Your task to perform on an android device: check android version Image 0: 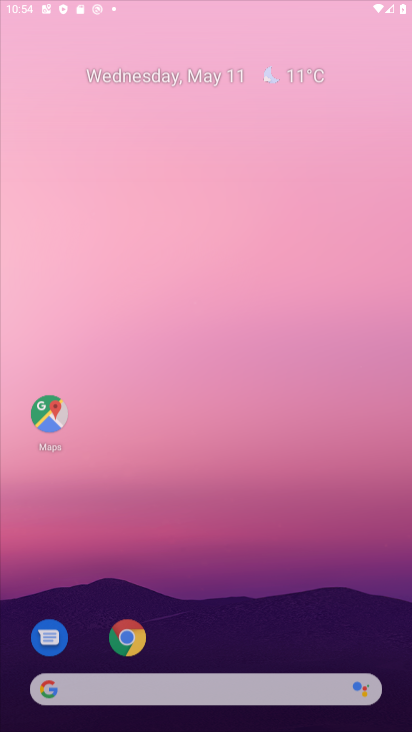
Step 0: click (256, 177)
Your task to perform on an android device: check android version Image 1: 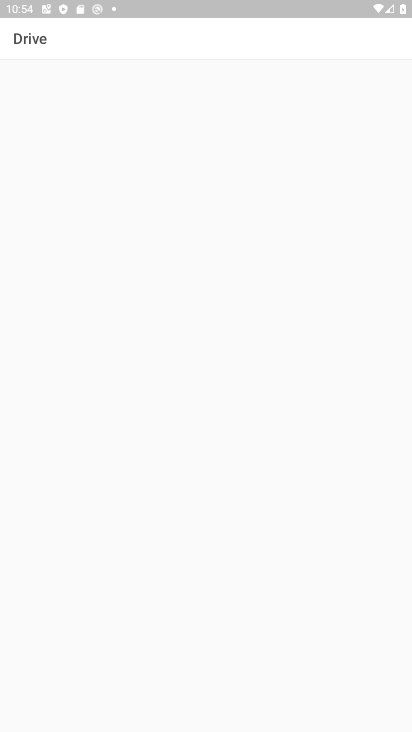
Step 1: press home button
Your task to perform on an android device: check android version Image 2: 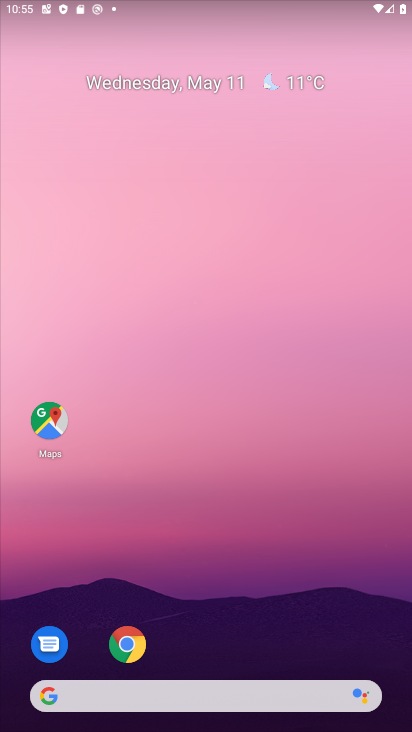
Step 2: drag from (208, 654) to (230, 243)
Your task to perform on an android device: check android version Image 3: 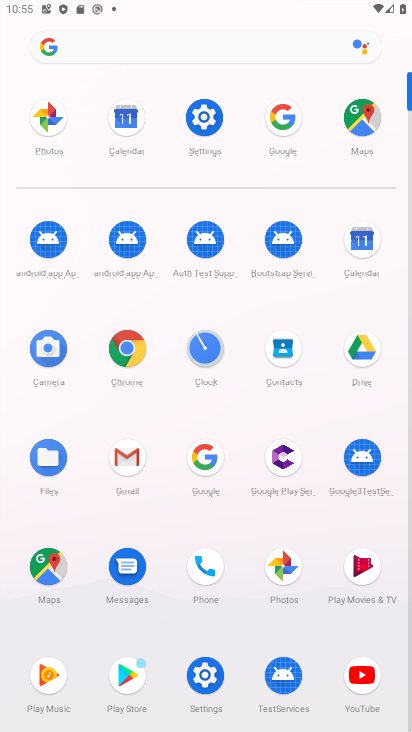
Step 3: click (203, 670)
Your task to perform on an android device: check android version Image 4: 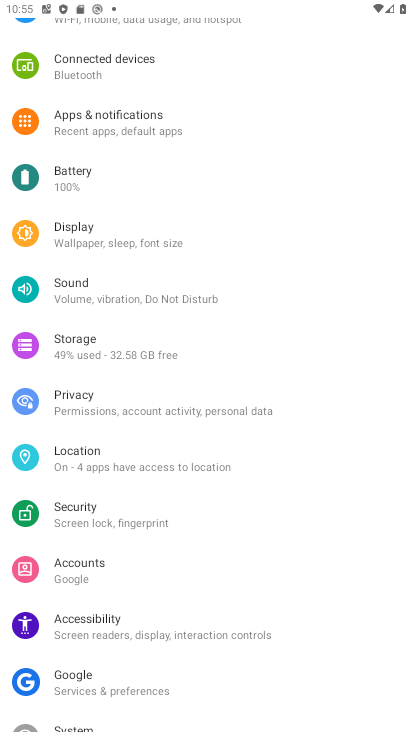
Step 4: drag from (175, 631) to (161, 169)
Your task to perform on an android device: check android version Image 5: 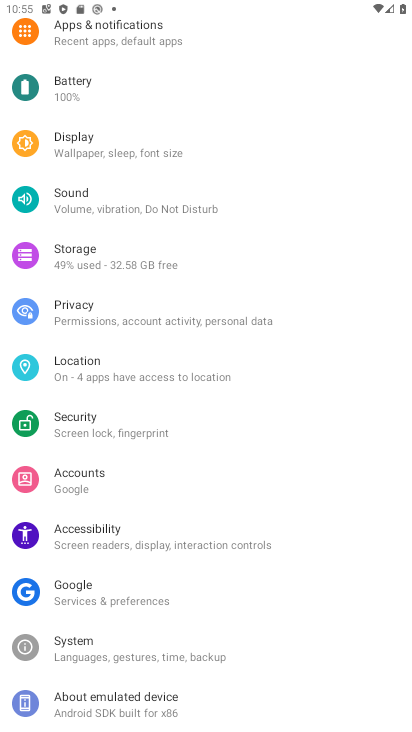
Step 5: click (128, 696)
Your task to perform on an android device: check android version Image 6: 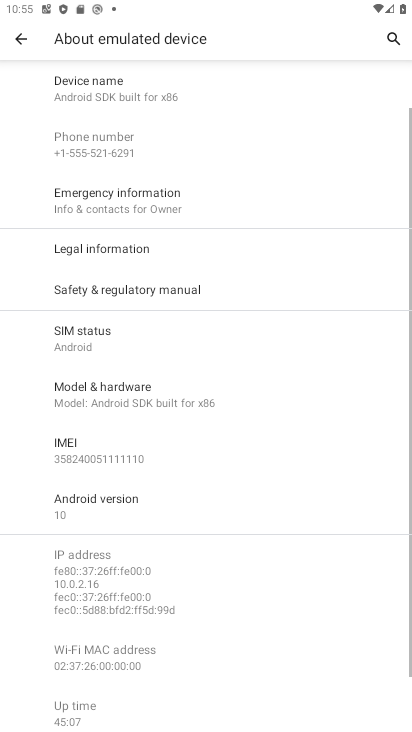
Step 6: click (106, 497)
Your task to perform on an android device: check android version Image 7: 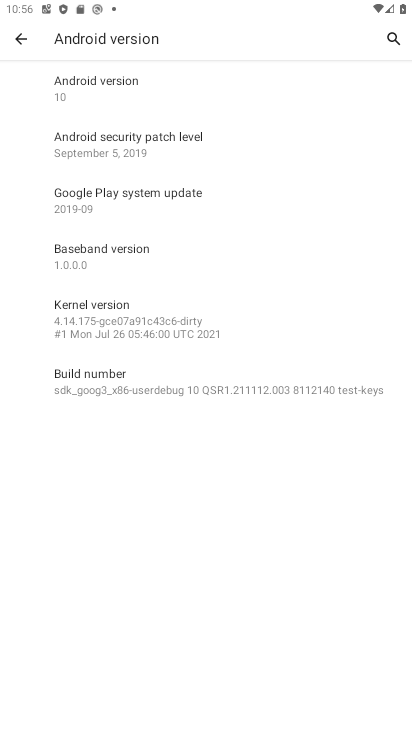
Step 7: task complete